Your task to perform on an android device: Open display settings Image 0: 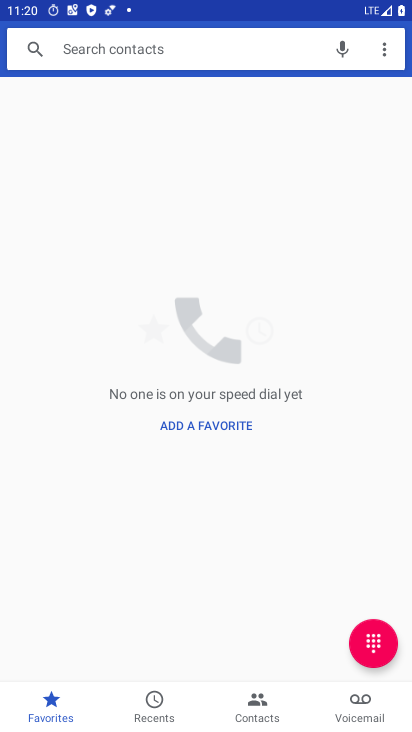
Step 0: press back button
Your task to perform on an android device: Open display settings Image 1: 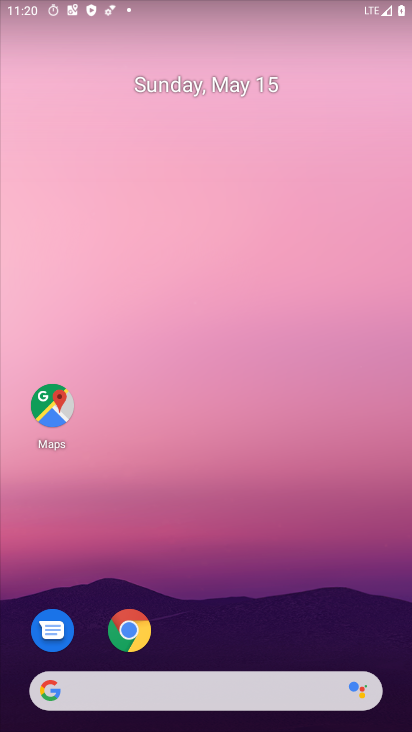
Step 1: drag from (191, 580) to (289, 84)
Your task to perform on an android device: Open display settings Image 2: 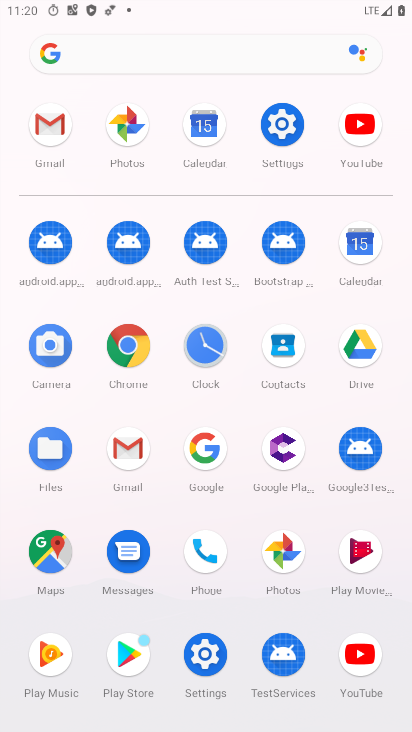
Step 2: click (283, 121)
Your task to perform on an android device: Open display settings Image 3: 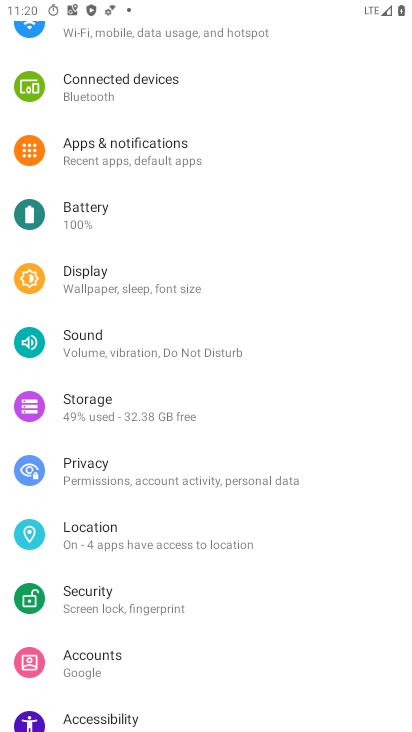
Step 3: click (116, 274)
Your task to perform on an android device: Open display settings Image 4: 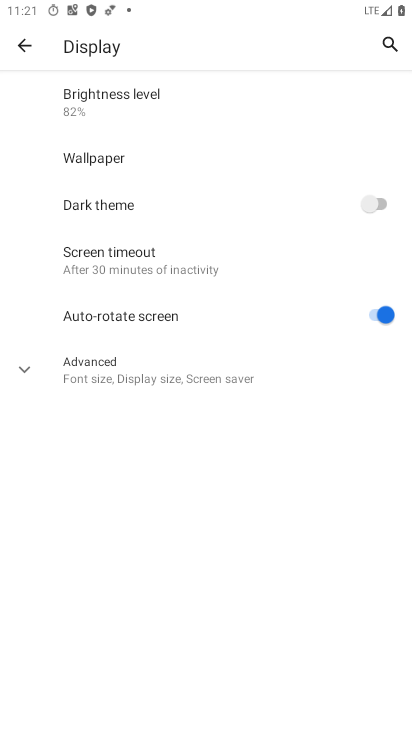
Step 4: task complete